Your task to perform on an android device: How much does a 2 bedroom apartment rent for in Chicago? Image 0: 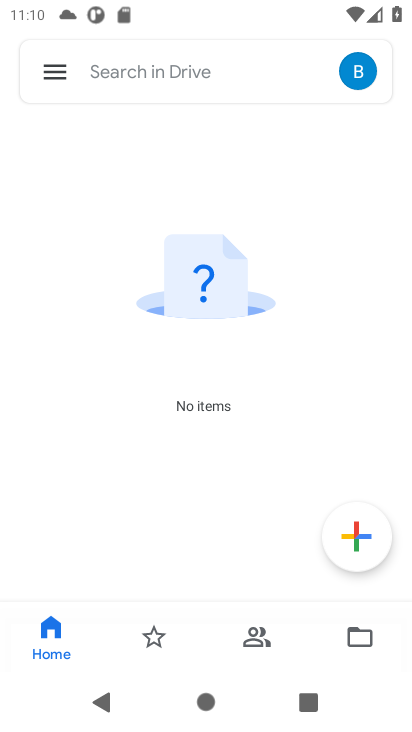
Step 0: press home button
Your task to perform on an android device: How much does a 2 bedroom apartment rent for in Chicago? Image 1: 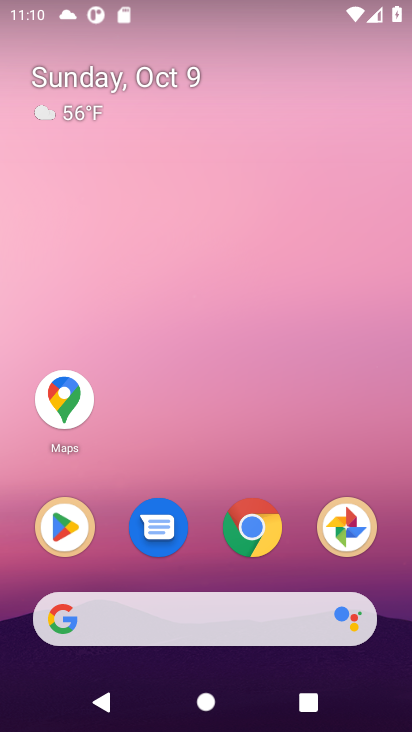
Step 1: click (260, 528)
Your task to perform on an android device: How much does a 2 bedroom apartment rent for in Chicago? Image 2: 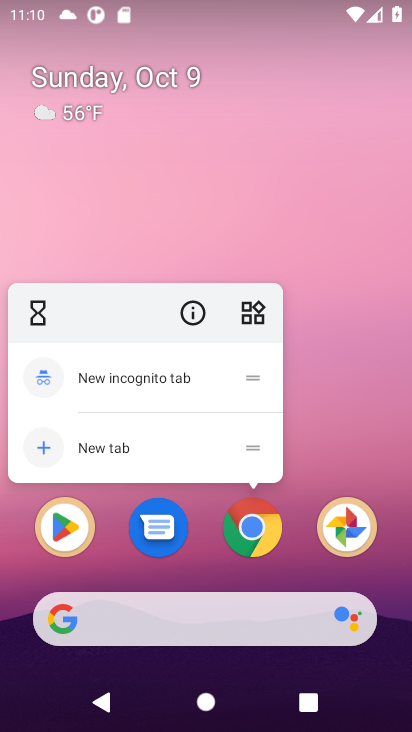
Step 2: click (254, 532)
Your task to perform on an android device: How much does a 2 bedroom apartment rent for in Chicago? Image 3: 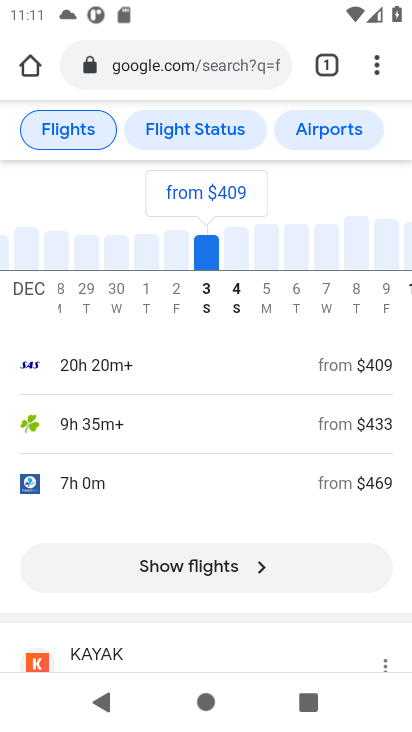
Step 3: click (245, 75)
Your task to perform on an android device: How much does a 2 bedroom apartment rent for in Chicago? Image 4: 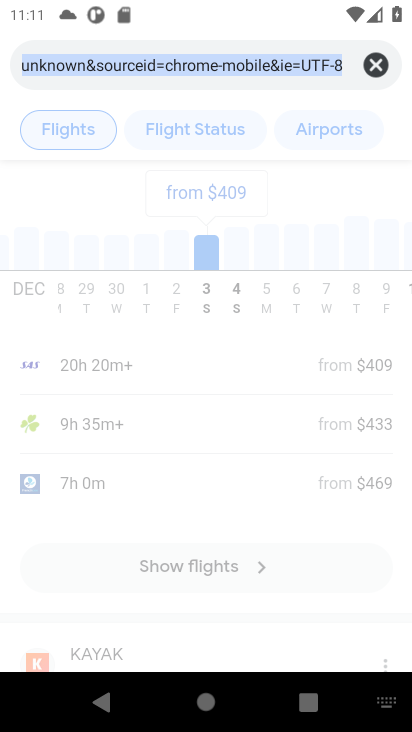
Step 4: click (382, 61)
Your task to perform on an android device: How much does a 2 bedroom apartment rent for in Chicago? Image 5: 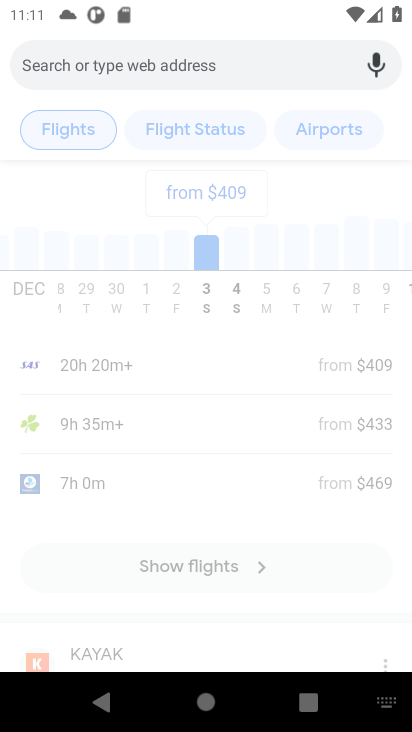
Step 5: type "How much does a 2 bedroom apartment rent for in Chicago?"
Your task to perform on an android device: How much does a 2 bedroom apartment rent for in Chicago? Image 6: 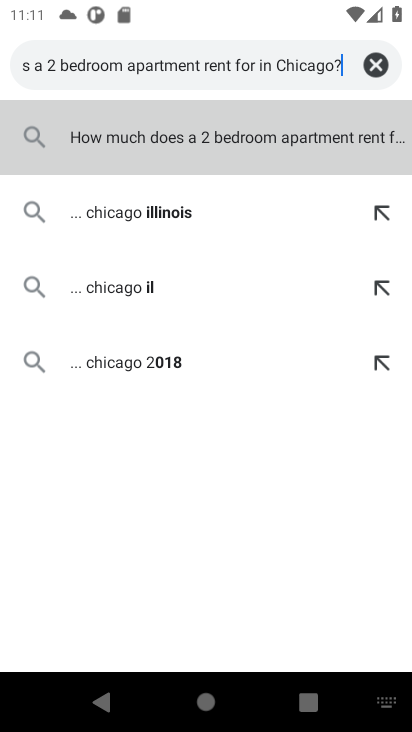
Step 6: click (111, 135)
Your task to perform on an android device: How much does a 2 bedroom apartment rent for in Chicago? Image 7: 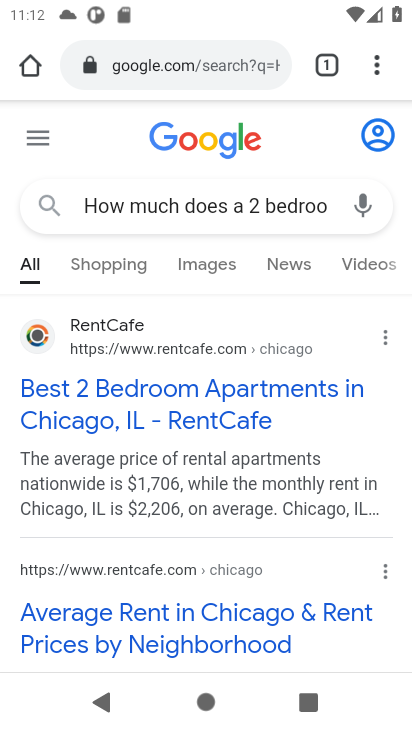
Step 7: click (166, 430)
Your task to perform on an android device: How much does a 2 bedroom apartment rent for in Chicago? Image 8: 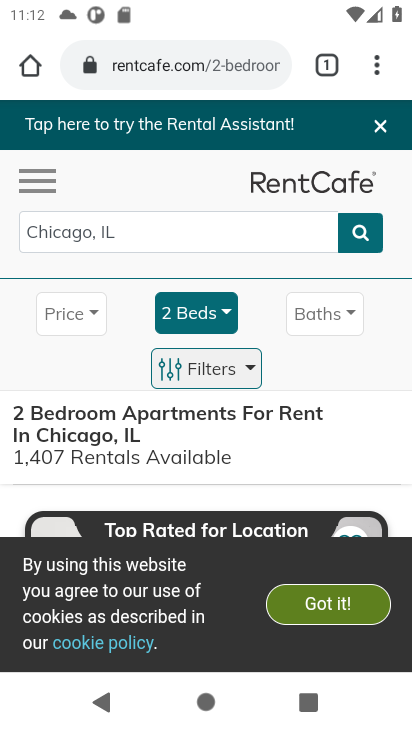
Step 8: task complete